Your task to perform on an android device: View the shopping cart on target.com. Add "alienware area 51" to the cart on target.com Image 0: 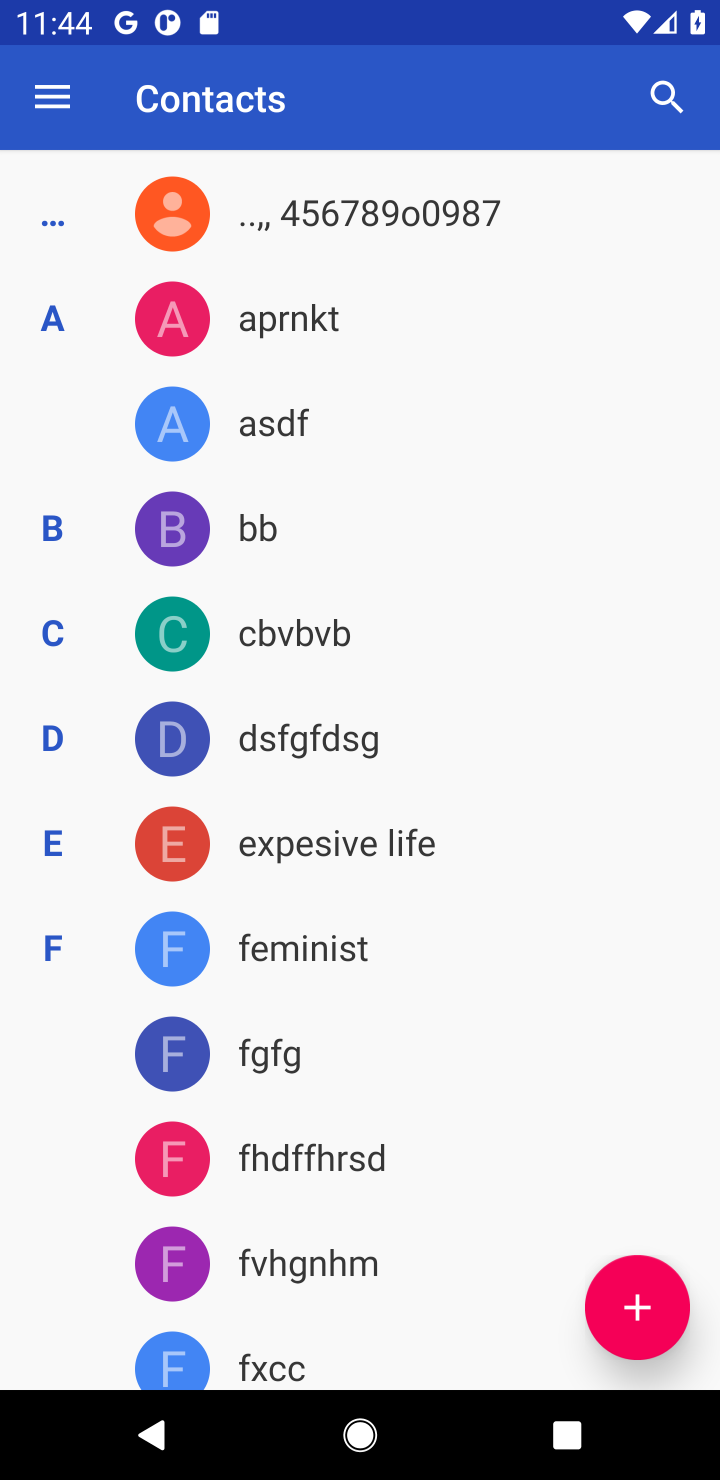
Step 0: press home button
Your task to perform on an android device: View the shopping cart on target.com. Add "alienware area 51" to the cart on target.com Image 1: 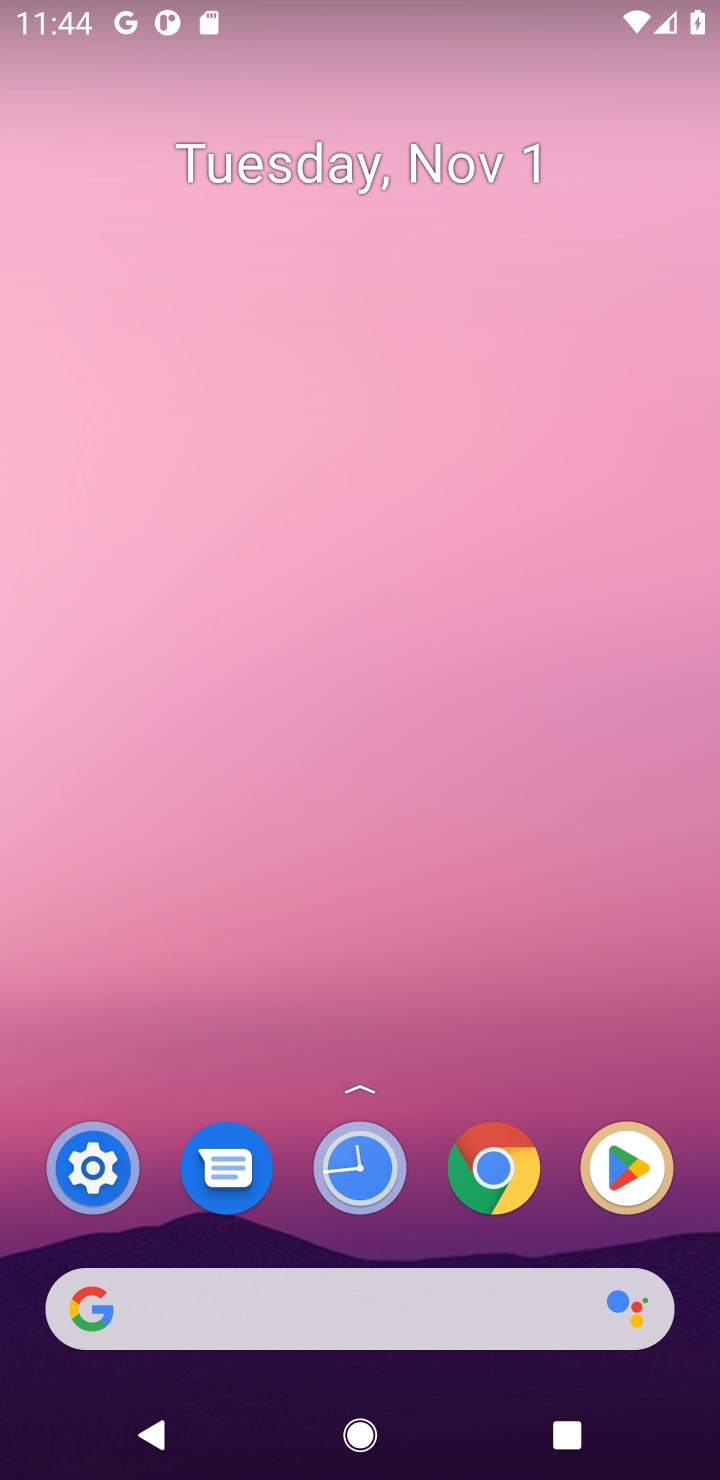
Step 1: click (499, 1175)
Your task to perform on an android device: View the shopping cart on target.com. Add "alienware area 51" to the cart on target.com Image 2: 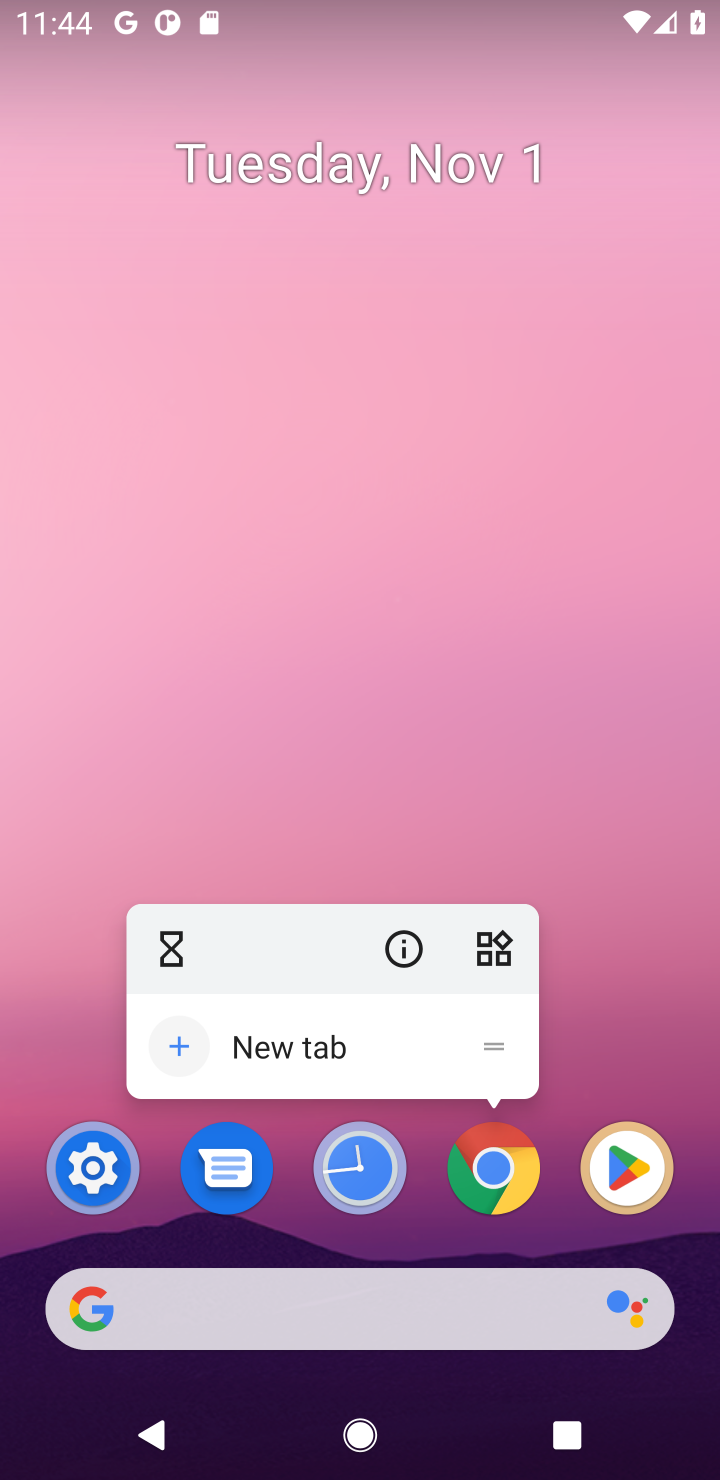
Step 2: click (490, 1166)
Your task to perform on an android device: View the shopping cart on target.com. Add "alienware area 51" to the cart on target.com Image 3: 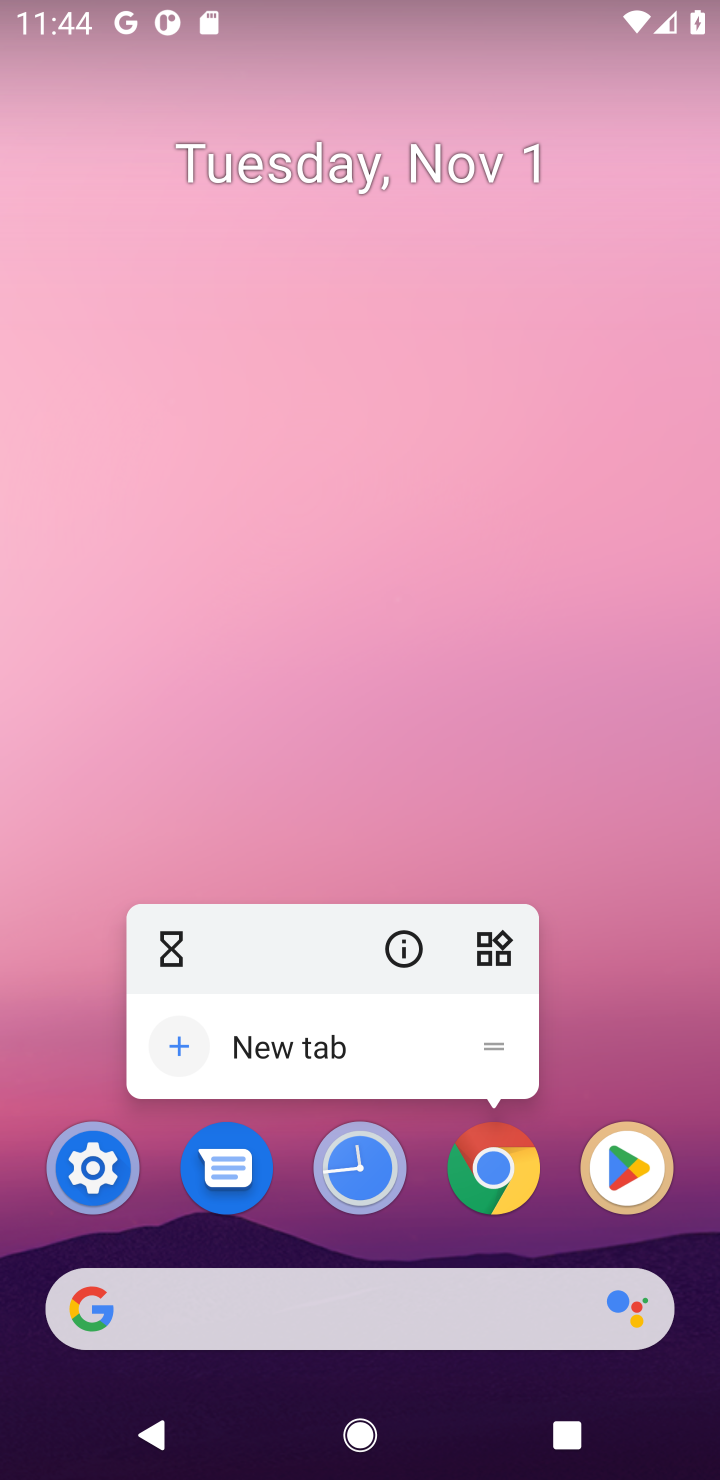
Step 3: click (490, 1166)
Your task to perform on an android device: View the shopping cart on target.com. Add "alienware area 51" to the cart on target.com Image 4: 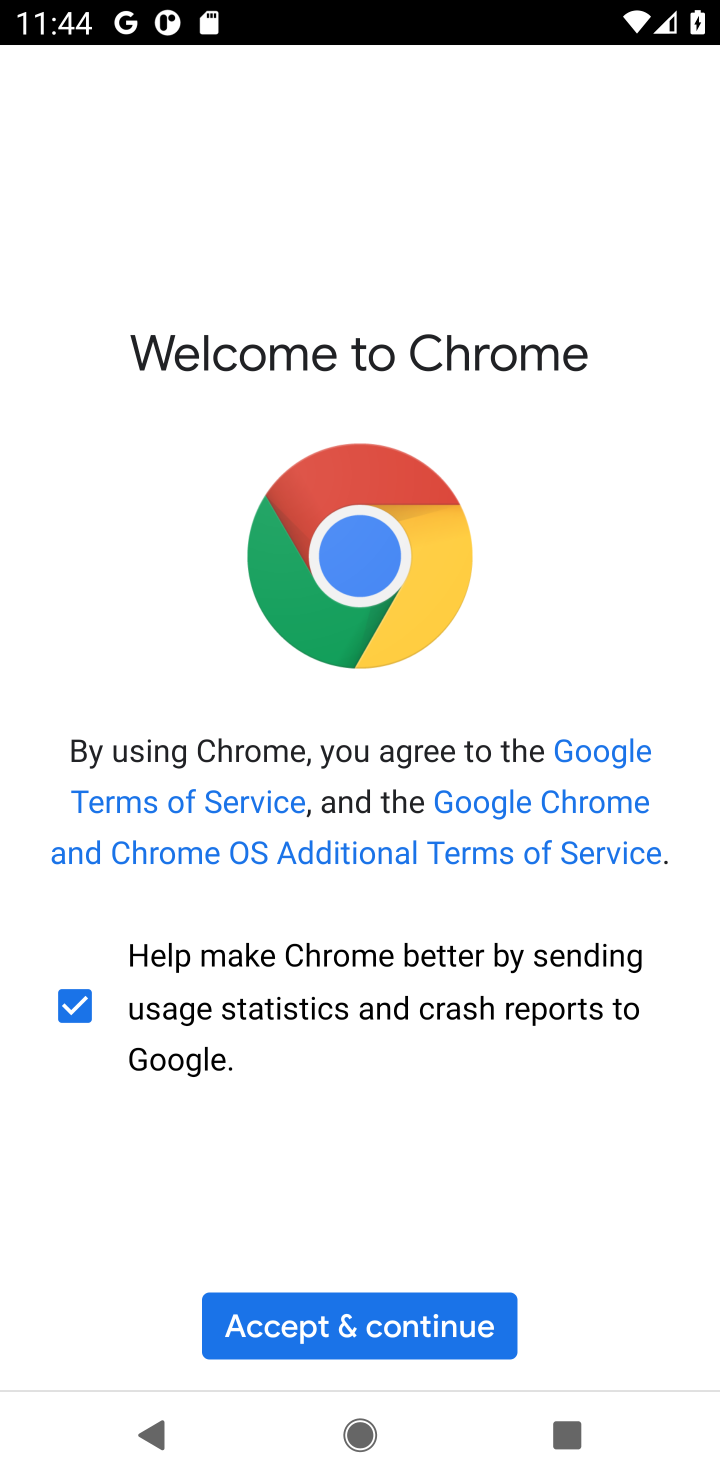
Step 4: click (439, 1328)
Your task to perform on an android device: View the shopping cart on target.com. Add "alienware area 51" to the cart on target.com Image 5: 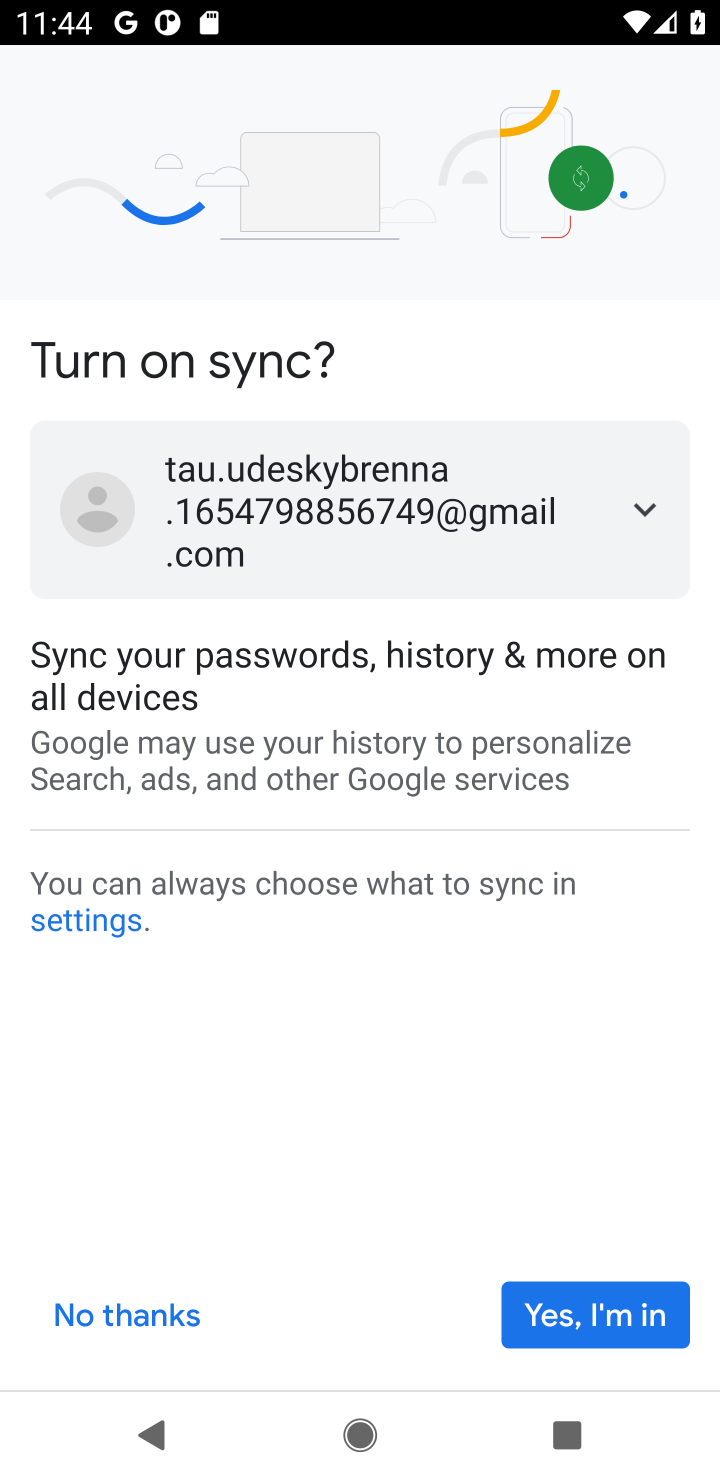
Step 5: click (580, 1309)
Your task to perform on an android device: View the shopping cart on target.com. Add "alienware area 51" to the cart on target.com Image 6: 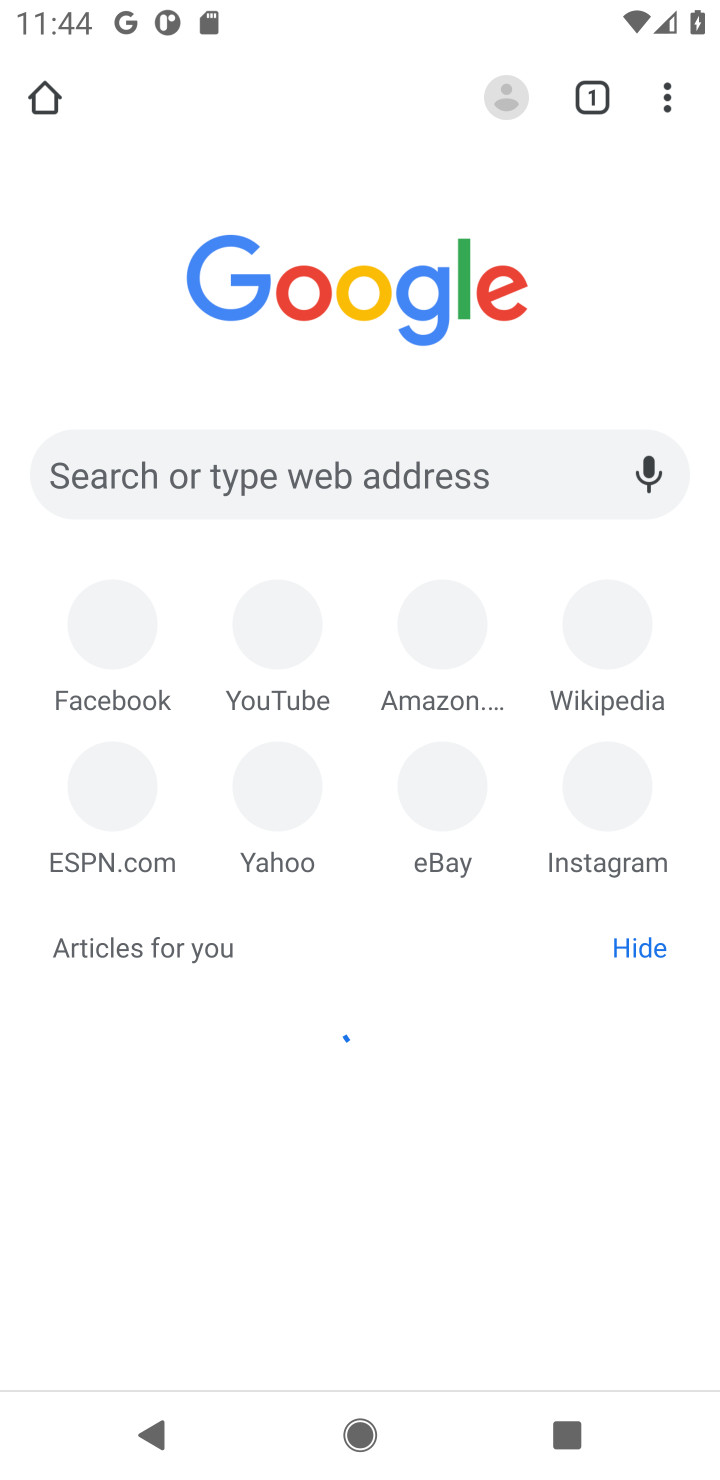
Step 6: click (467, 482)
Your task to perform on an android device: View the shopping cart on target.com. Add "alienware area 51" to the cart on target.com Image 7: 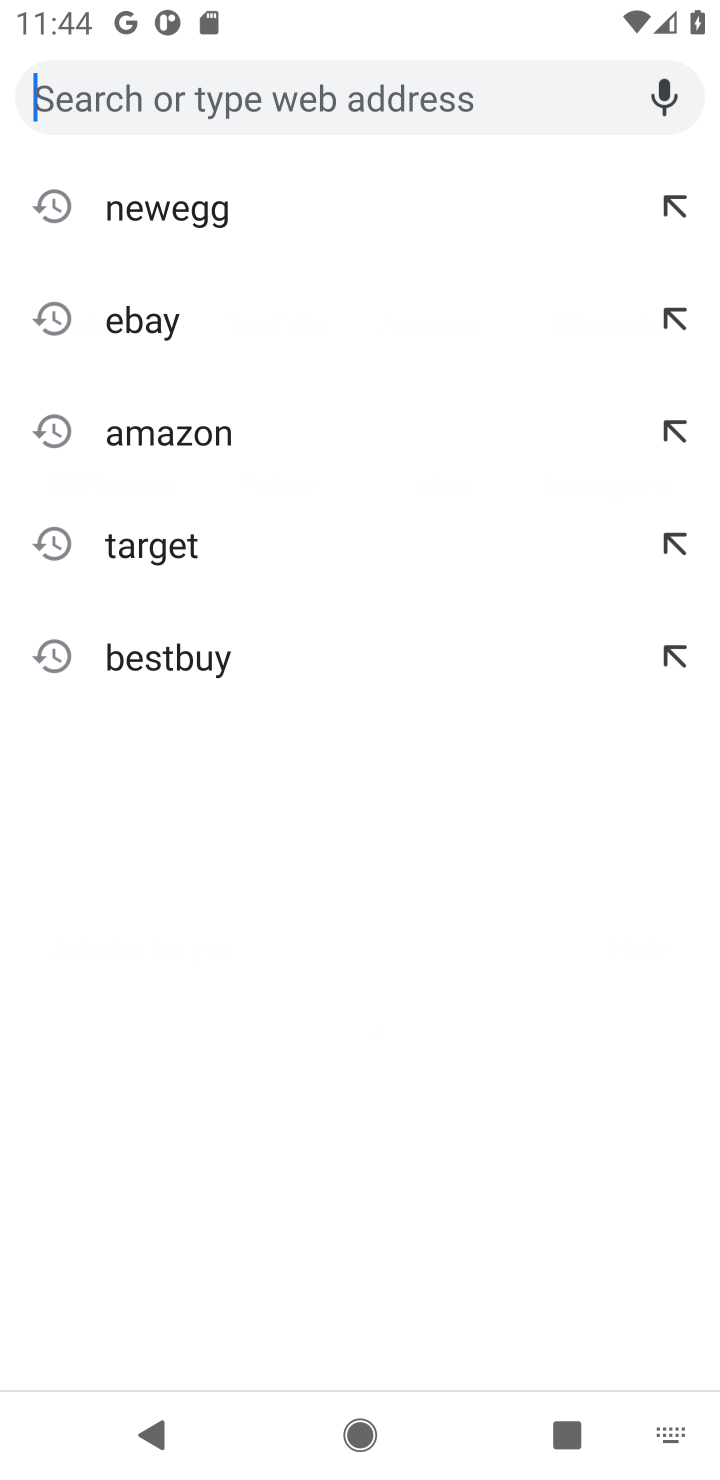
Step 7: type ""
Your task to perform on an android device: View the shopping cart on target.com. Add "alienware area 51" to the cart on target.com Image 8: 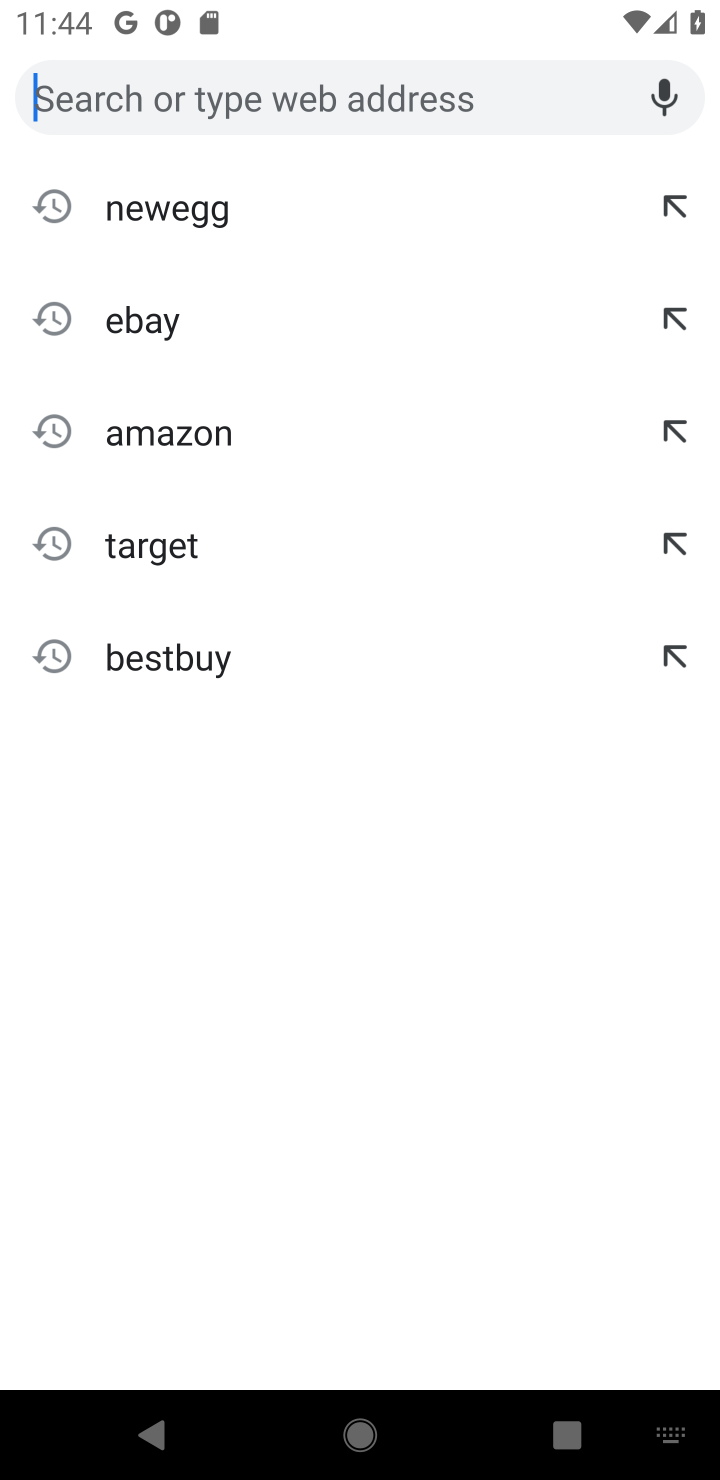
Step 8: type "target.com"
Your task to perform on an android device: View the shopping cart on target.com. Add "alienware area 51" to the cart on target.com Image 9: 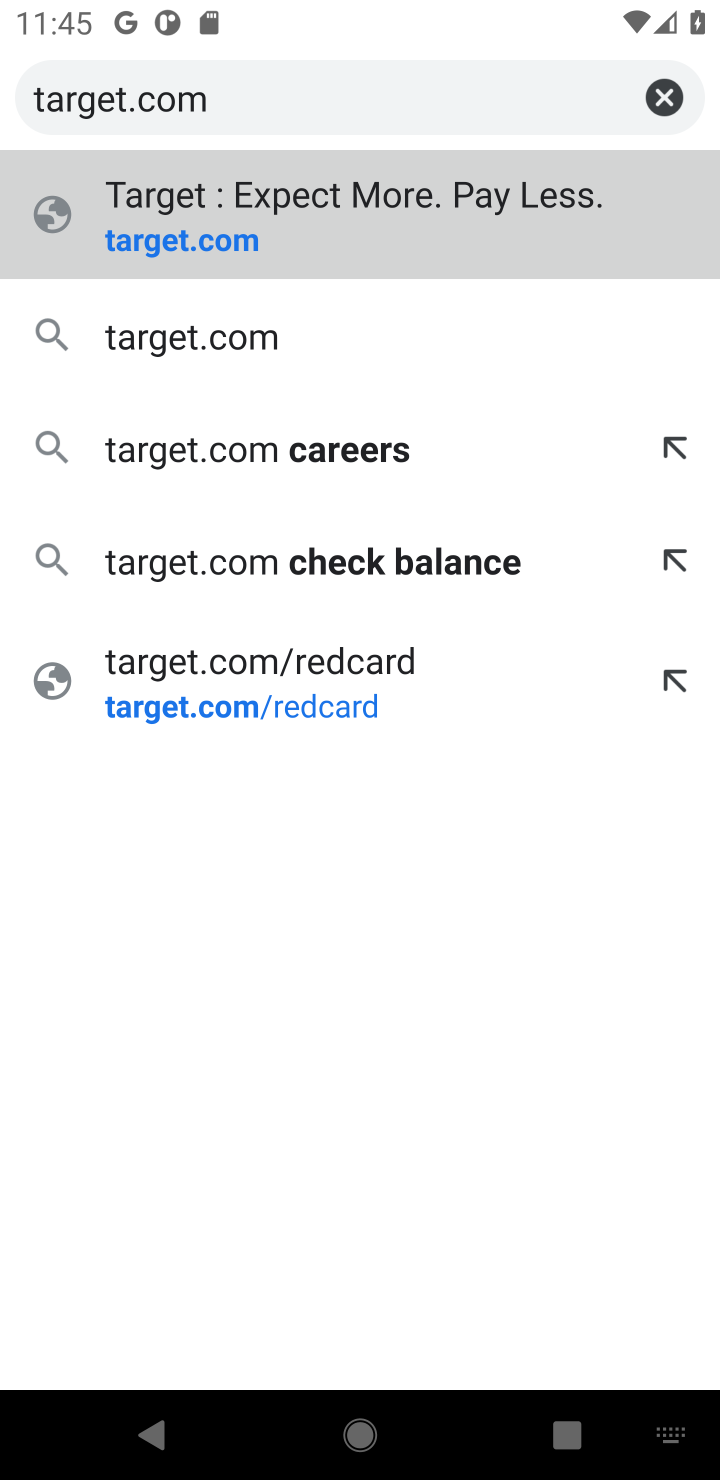
Step 9: click (203, 341)
Your task to perform on an android device: View the shopping cart on target.com. Add "alienware area 51" to the cart on target.com Image 10: 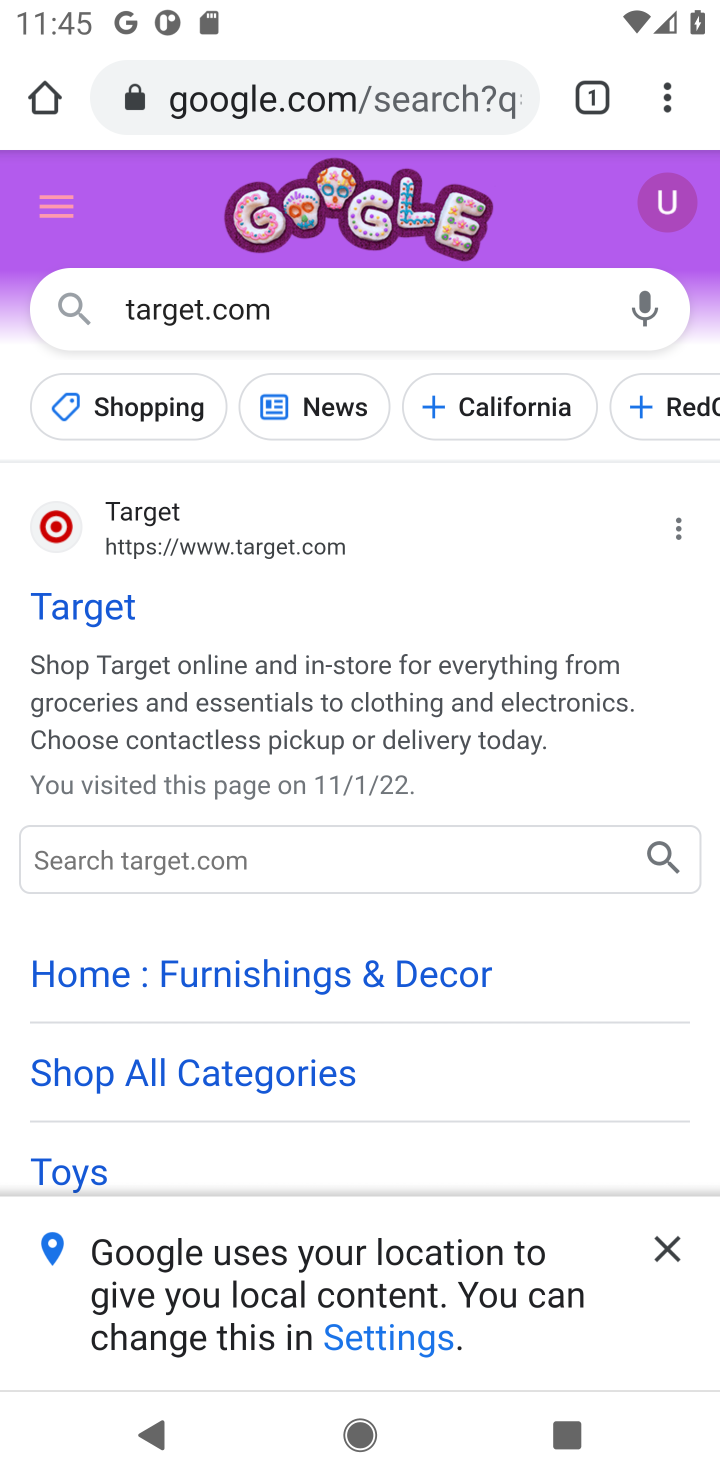
Step 10: click (114, 603)
Your task to perform on an android device: View the shopping cart on target.com. Add "alienware area 51" to the cart on target.com Image 11: 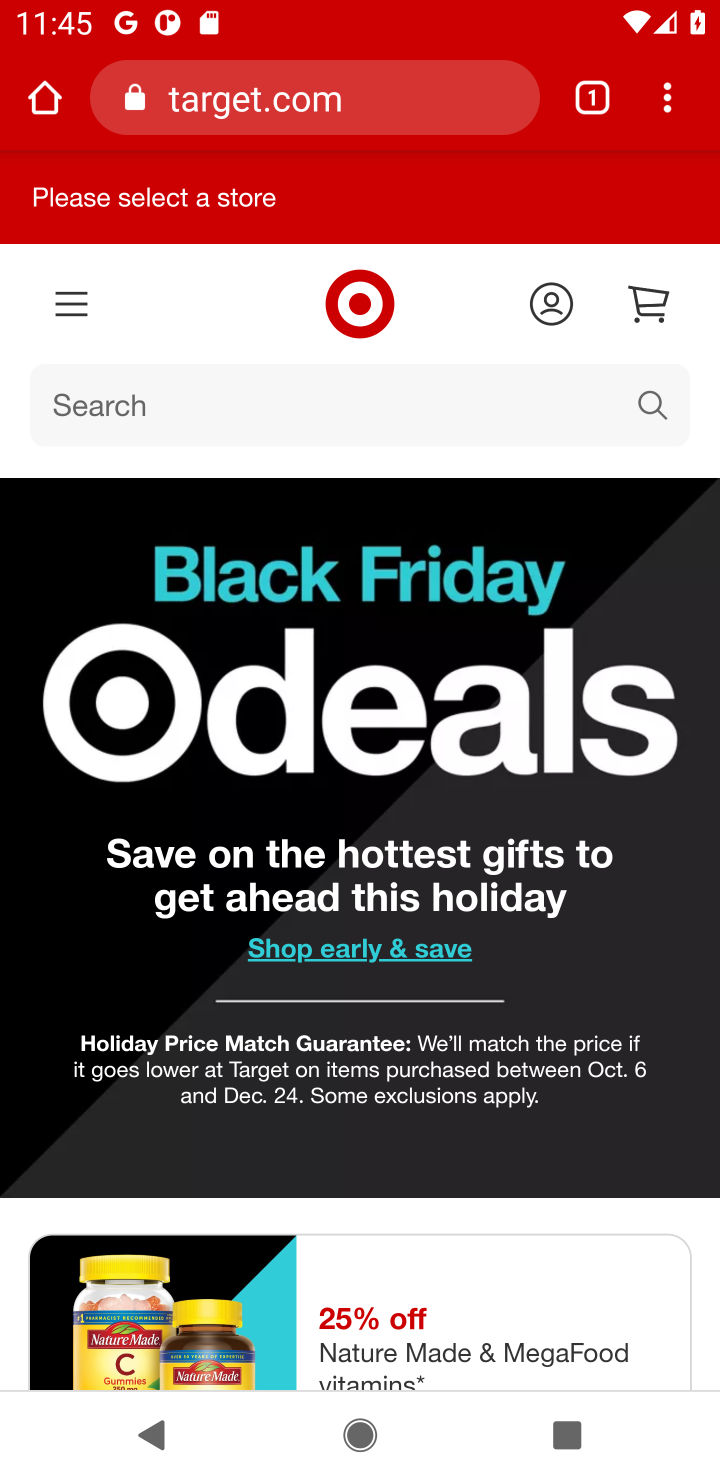
Step 11: click (647, 306)
Your task to perform on an android device: View the shopping cart on target.com. Add "alienware area 51" to the cart on target.com Image 12: 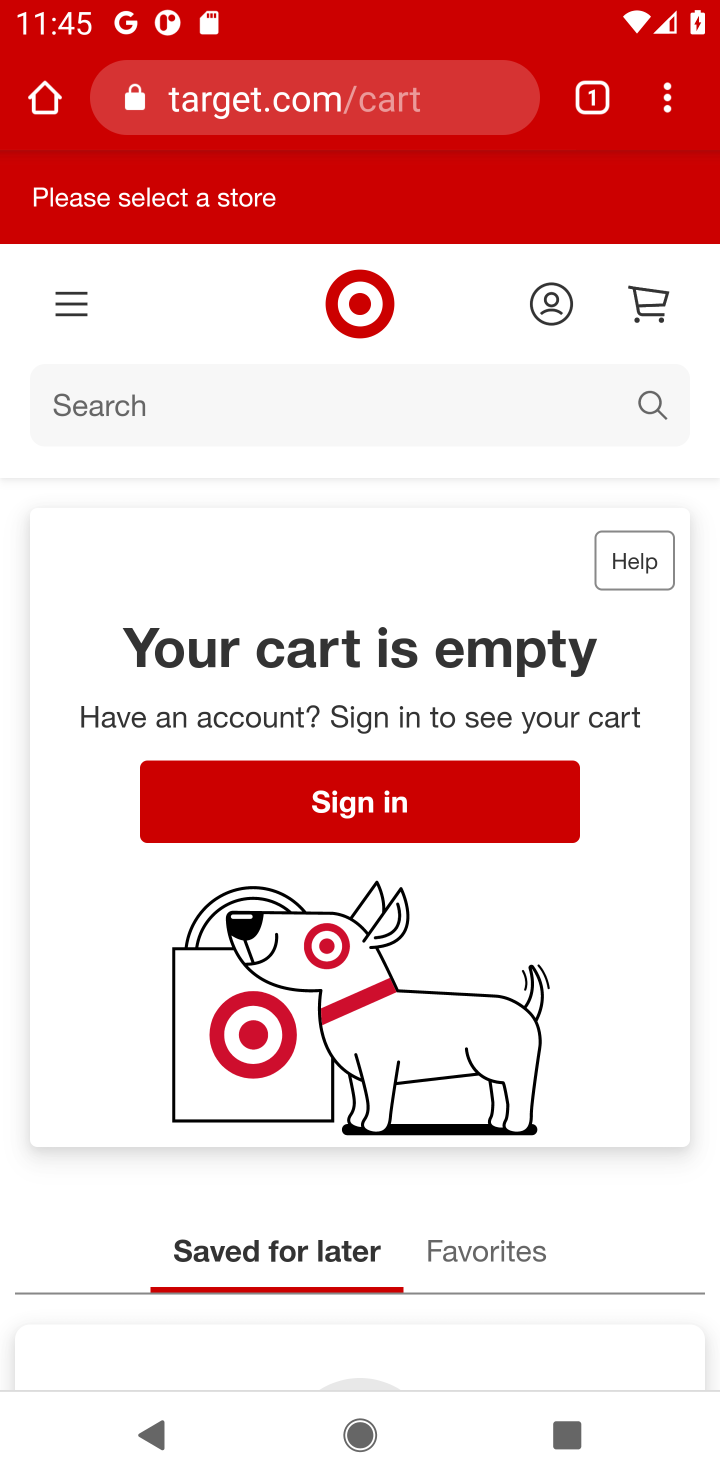
Step 12: click (515, 410)
Your task to perform on an android device: View the shopping cart on target.com. Add "alienware area 51" to the cart on target.com Image 13: 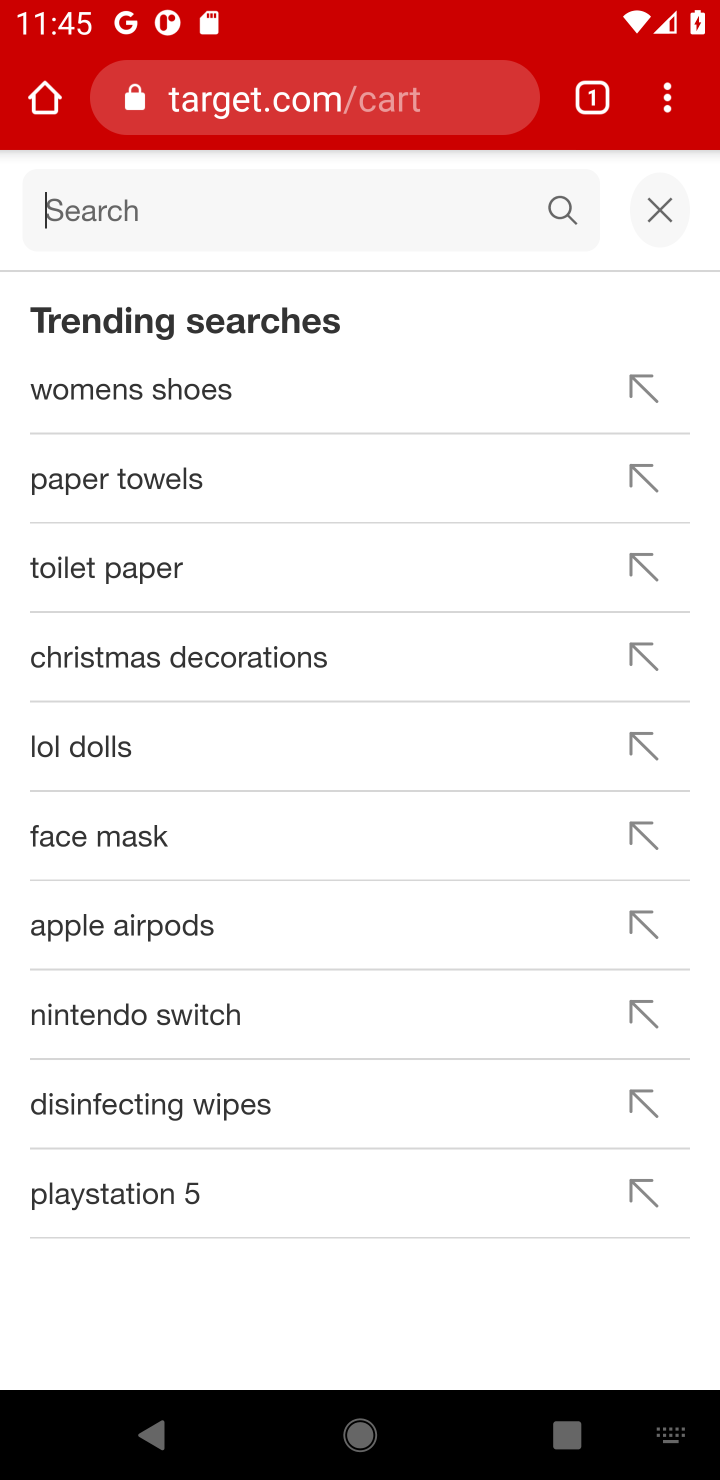
Step 13: type "alienware area 51"
Your task to perform on an android device: View the shopping cart on target.com. Add "alienware area 51" to the cart on target.com Image 14: 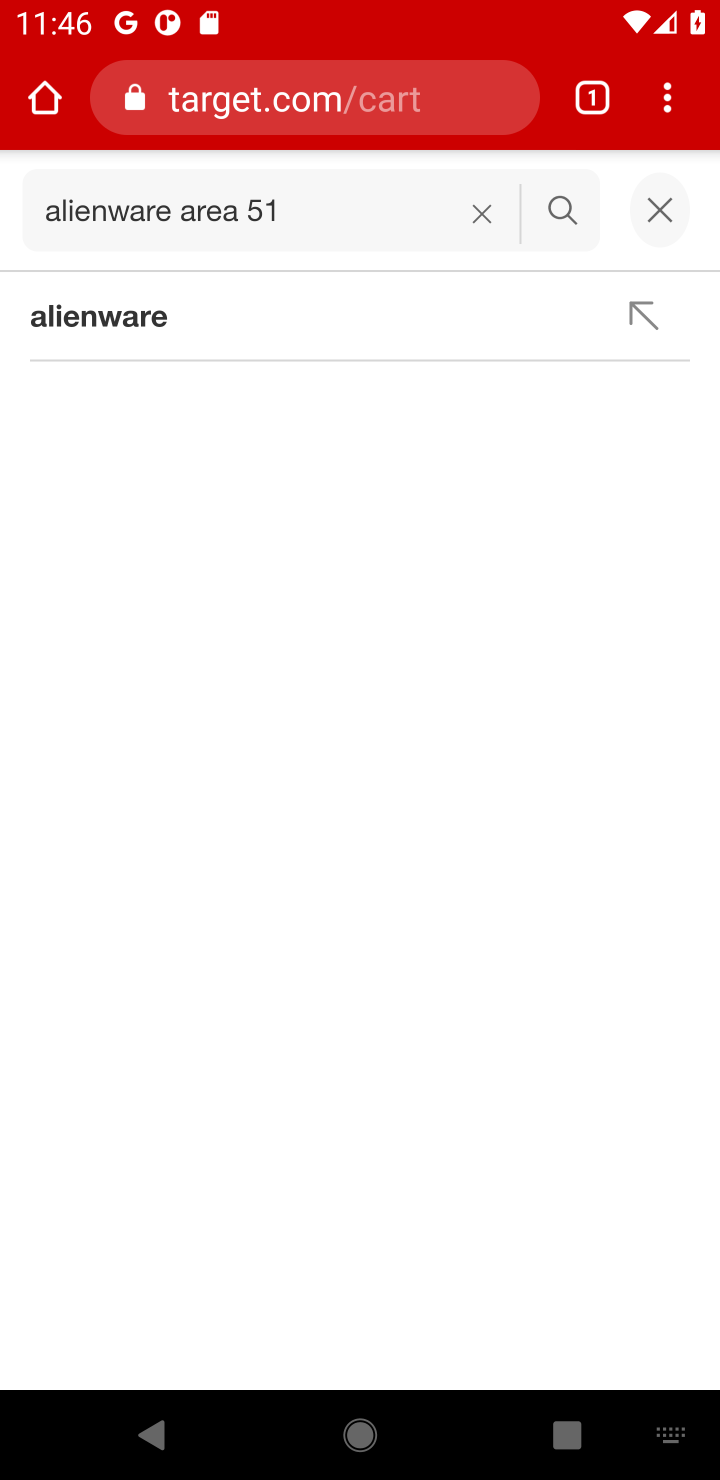
Step 14: click (572, 222)
Your task to perform on an android device: View the shopping cart on target.com. Add "alienware area 51" to the cart on target.com Image 15: 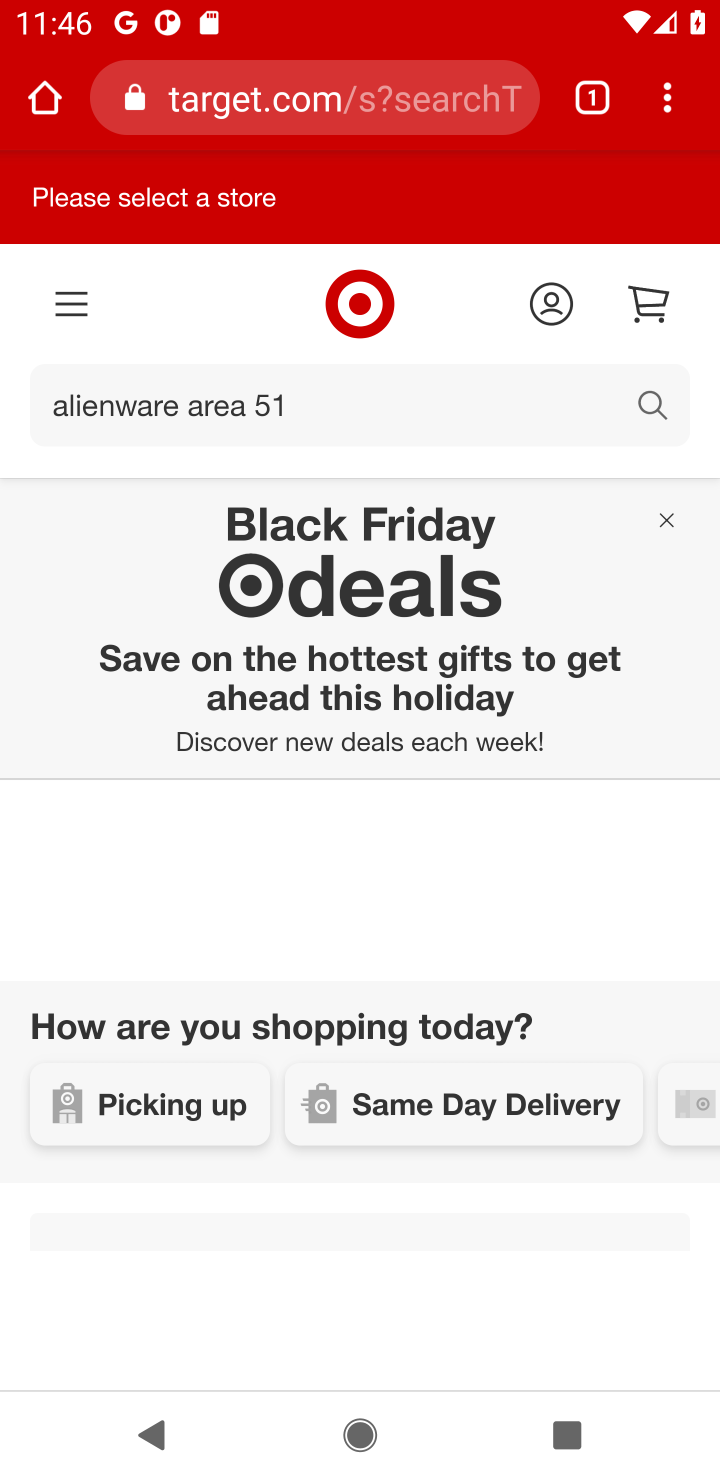
Step 15: drag from (491, 916) to (568, 320)
Your task to perform on an android device: View the shopping cart on target.com. Add "alienware area 51" to the cart on target.com Image 16: 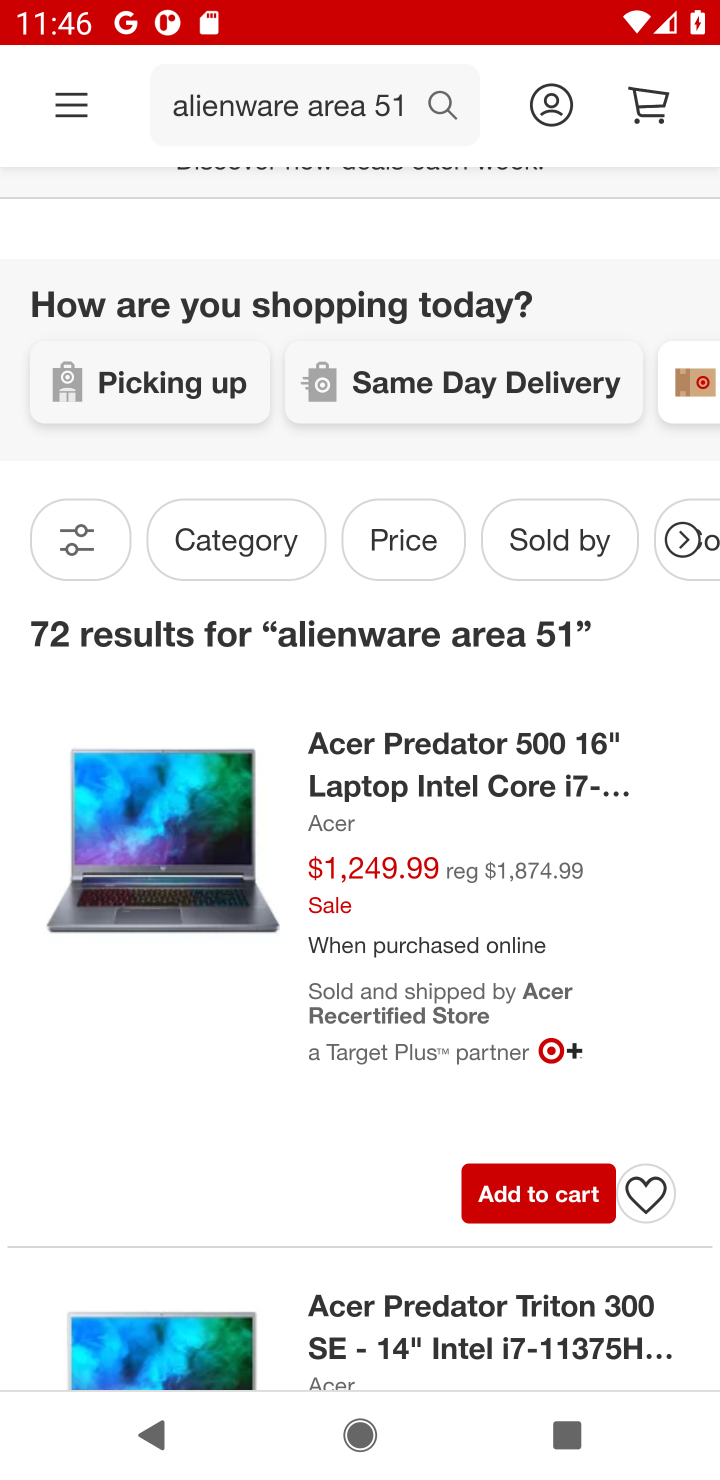
Step 16: click (492, 808)
Your task to perform on an android device: View the shopping cart on target.com. Add "alienware area 51" to the cart on target.com Image 17: 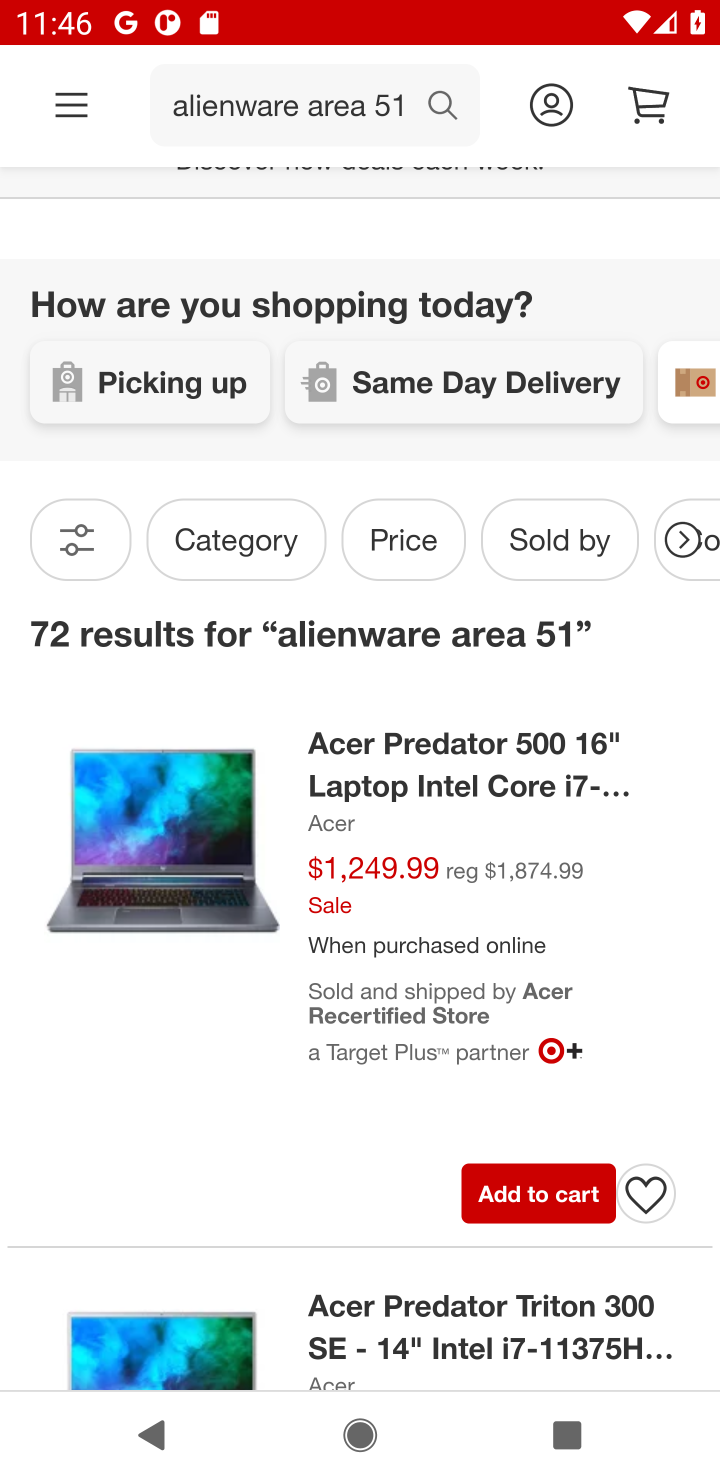
Step 17: click (523, 1201)
Your task to perform on an android device: View the shopping cart on target.com. Add "alienware area 51" to the cart on target.com Image 18: 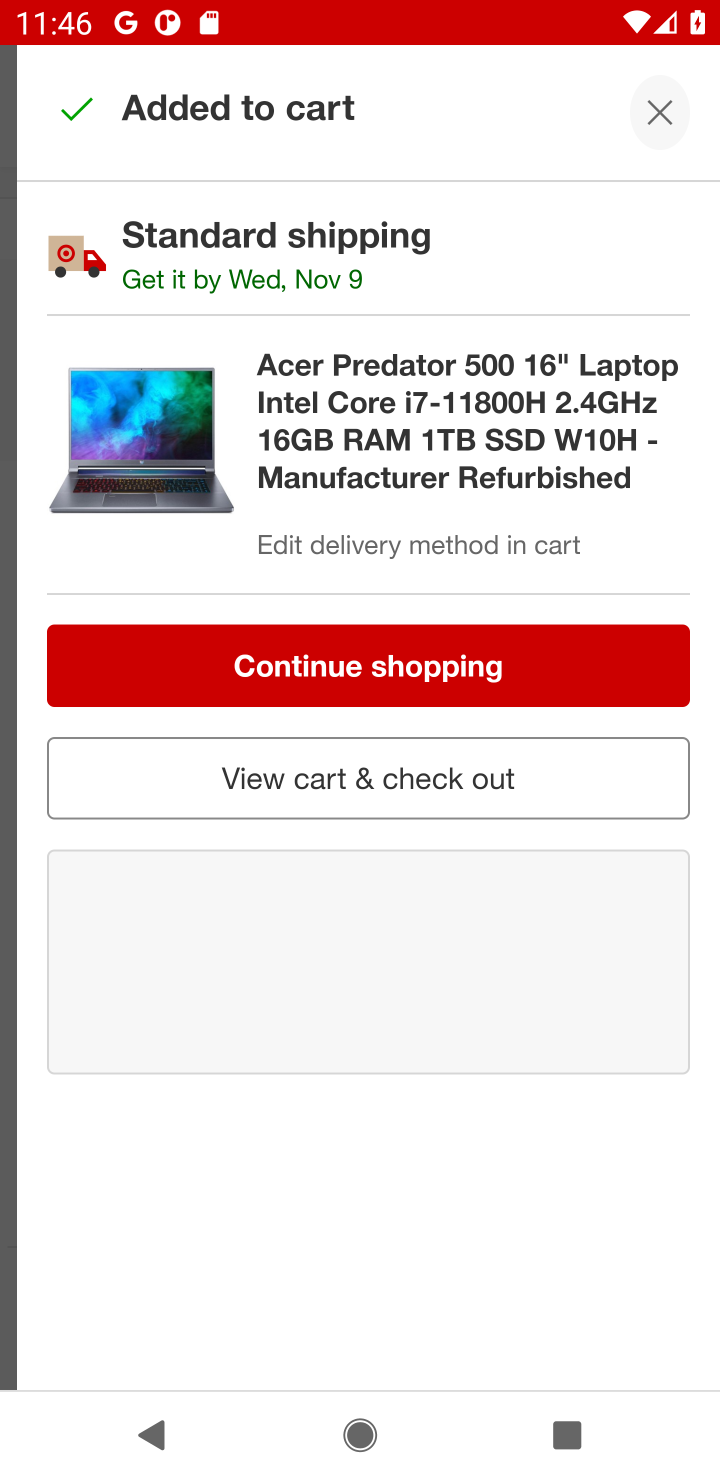
Step 18: click (458, 774)
Your task to perform on an android device: View the shopping cart on target.com. Add "alienware area 51" to the cart on target.com Image 19: 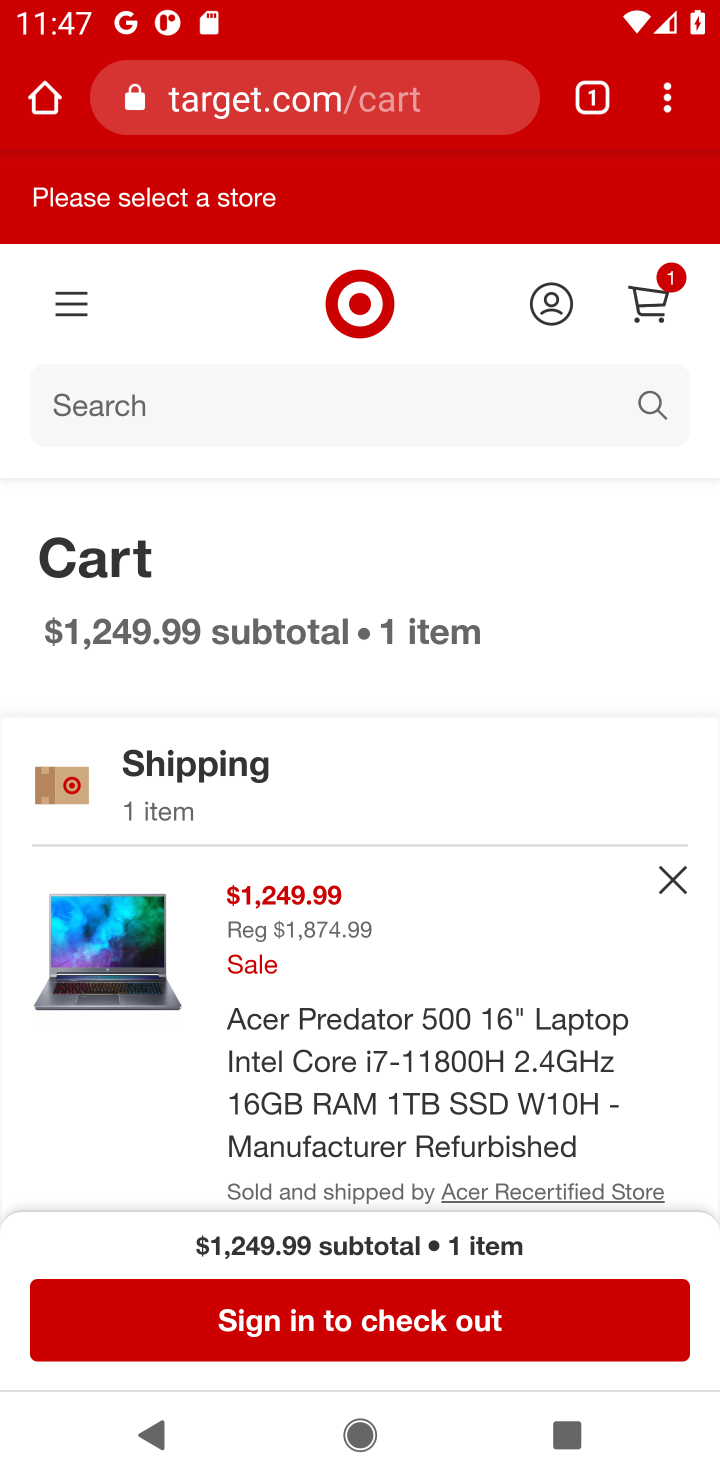
Step 19: task complete